Your task to perform on an android device: open chrome privacy settings Image 0: 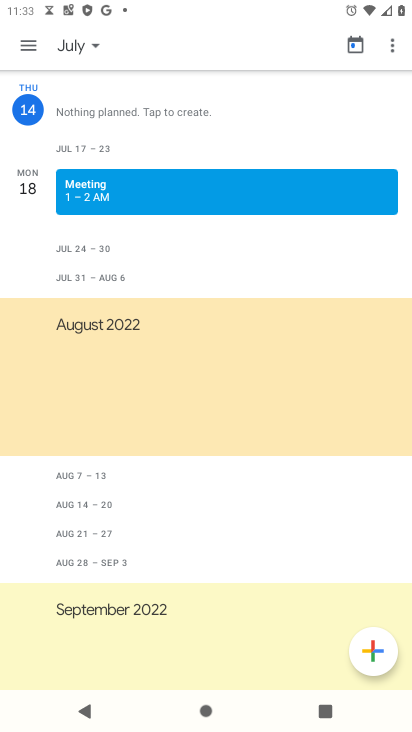
Step 0: press home button
Your task to perform on an android device: open chrome privacy settings Image 1: 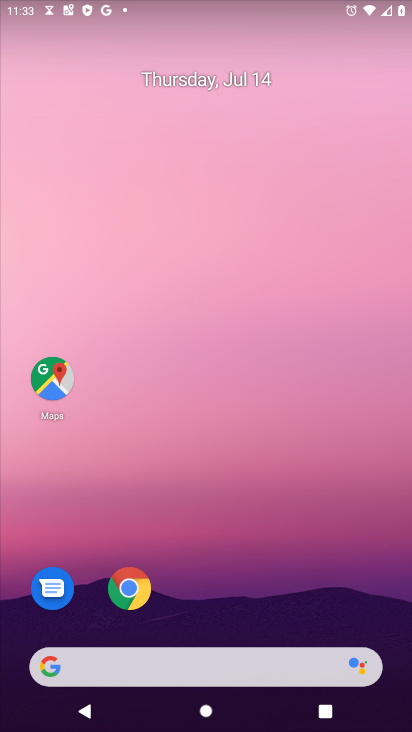
Step 1: click (133, 590)
Your task to perform on an android device: open chrome privacy settings Image 2: 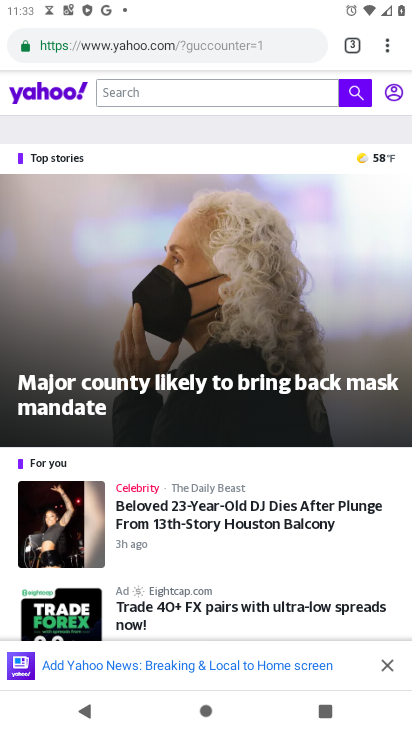
Step 2: drag from (387, 52) to (252, 557)
Your task to perform on an android device: open chrome privacy settings Image 3: 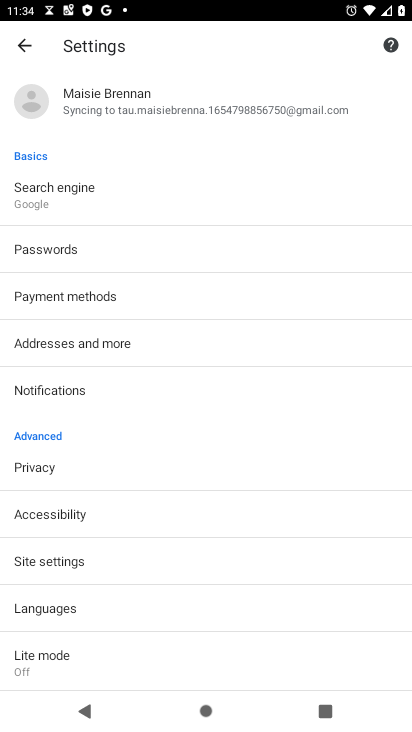
Step 3: click (49, 470)
Your task to perform on an android device: open chrome privacy settings Image 4: 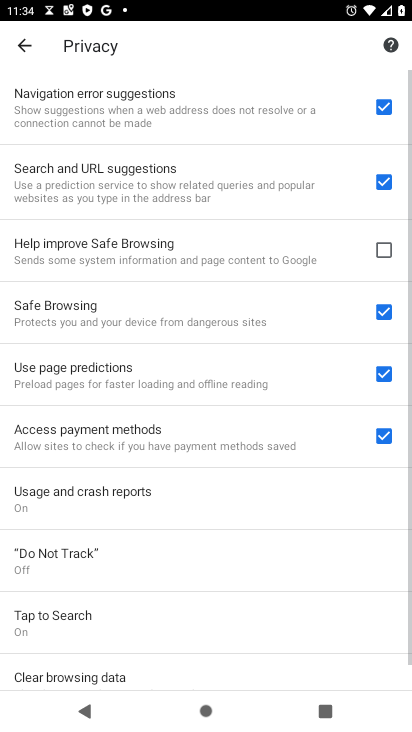
Step 4: task complete